Your task to perform on an android device: Open Google Chrome and open the bookmarks view Image 0: 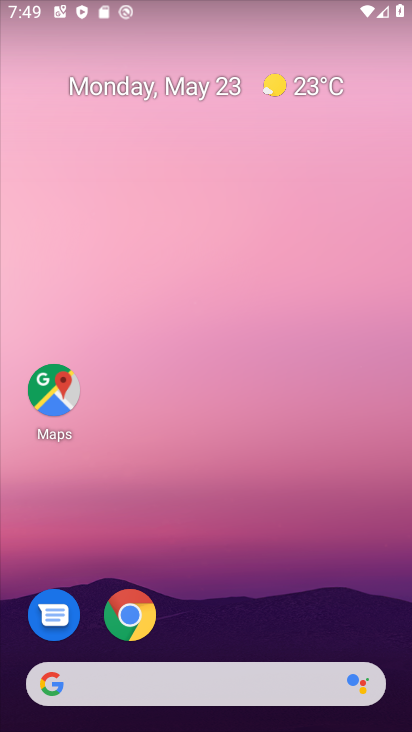
Step 0: click (128, 615)
Your task to perform on an android device: Open Google Chrome and open the bookmarks view Image 1: 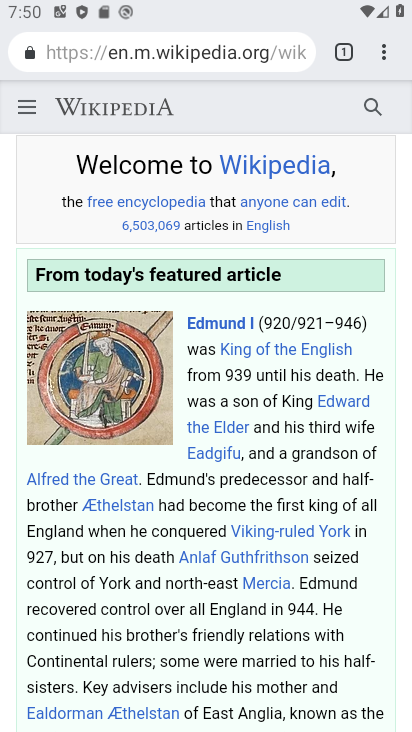
Step 1: click (384, 47)
Your task to perform on an android device: Open Google Chrome and open the bookmarks view Image 2: 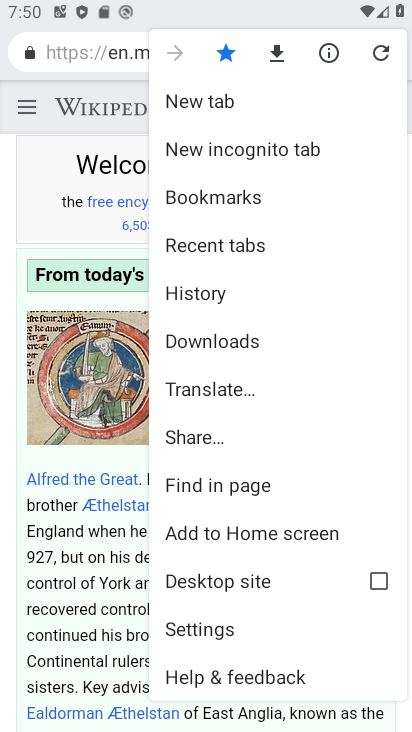
Step 2: click (248, 192)
Your task to perform on an android device: Open Google Chrome and open the bookmarks view Image 3: 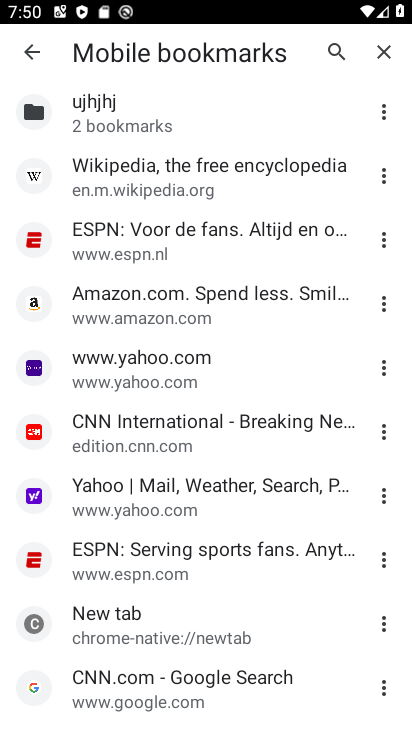
Step 3: task complete